Your task to perform on an android device: turn on wifi Image 0: 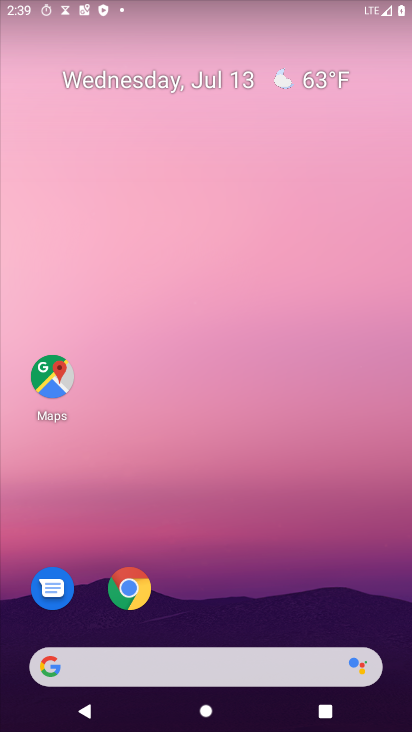
Step 0: drag from (249, 657) to (268, 247)
Your task to perform on an android device: turn on wifi Image 1: 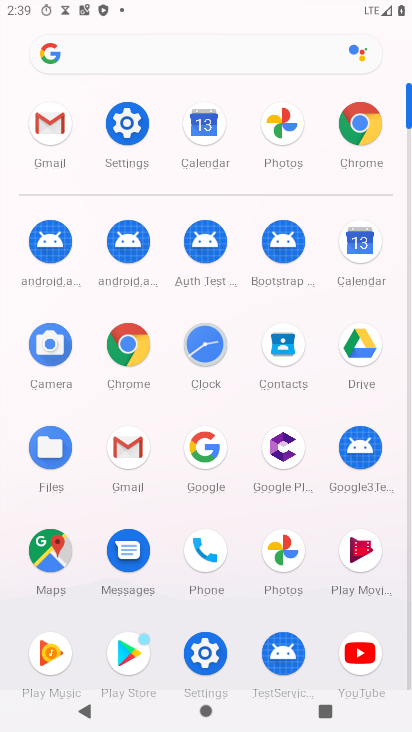
Step 1: click (123, 125)
Your task to perform on an android device: turn on wifi Image 2: 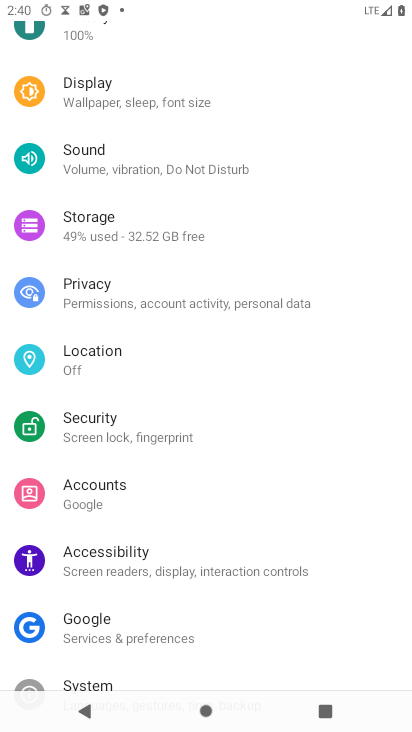
Step 2: drag from (145, 171) to (201, 543)
Your task to perform on an android device: turn on wifi Image 3: 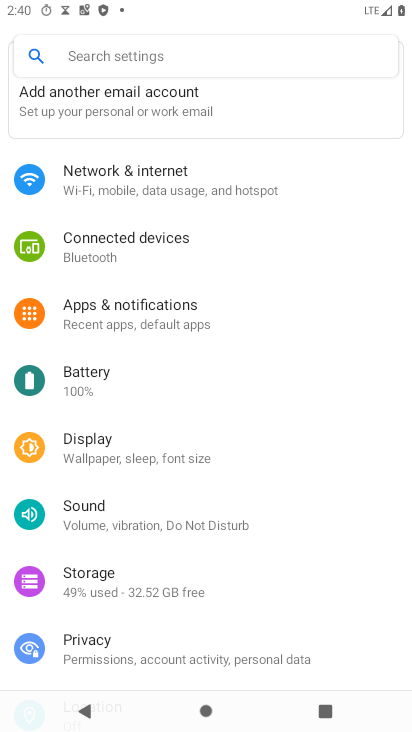
Step 3: click (183, 188)
Your task to perform on an android device: turn on wifi Image 4: 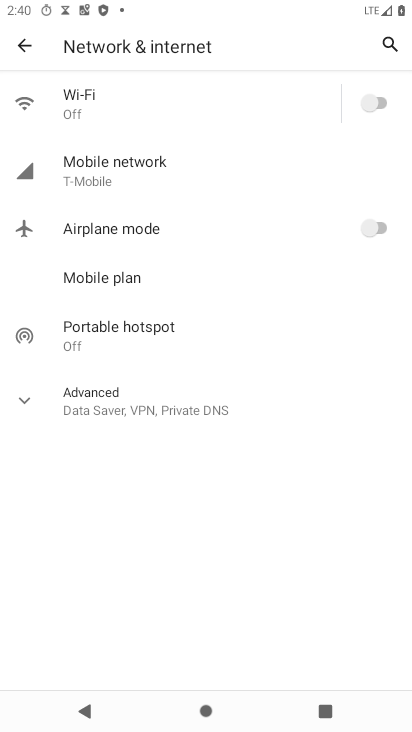
Step 4: click (382, 103)
Your task to perform on an android device: turn on wifi Image 5: 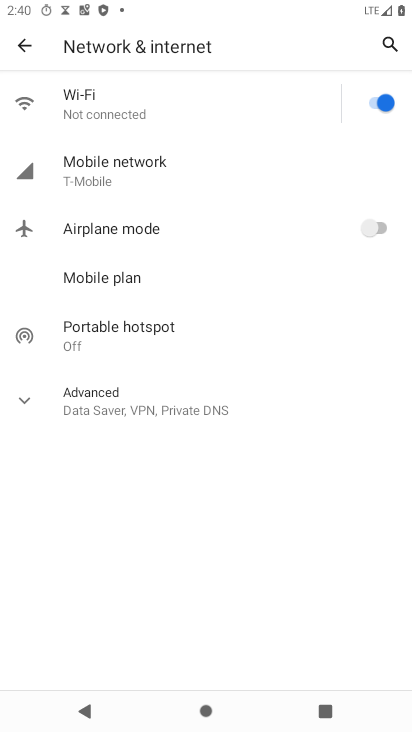
Step 5: task complete